Your task to perform on an android device: Look up the top rated 18v miter saw on Home Depot. Image 0: 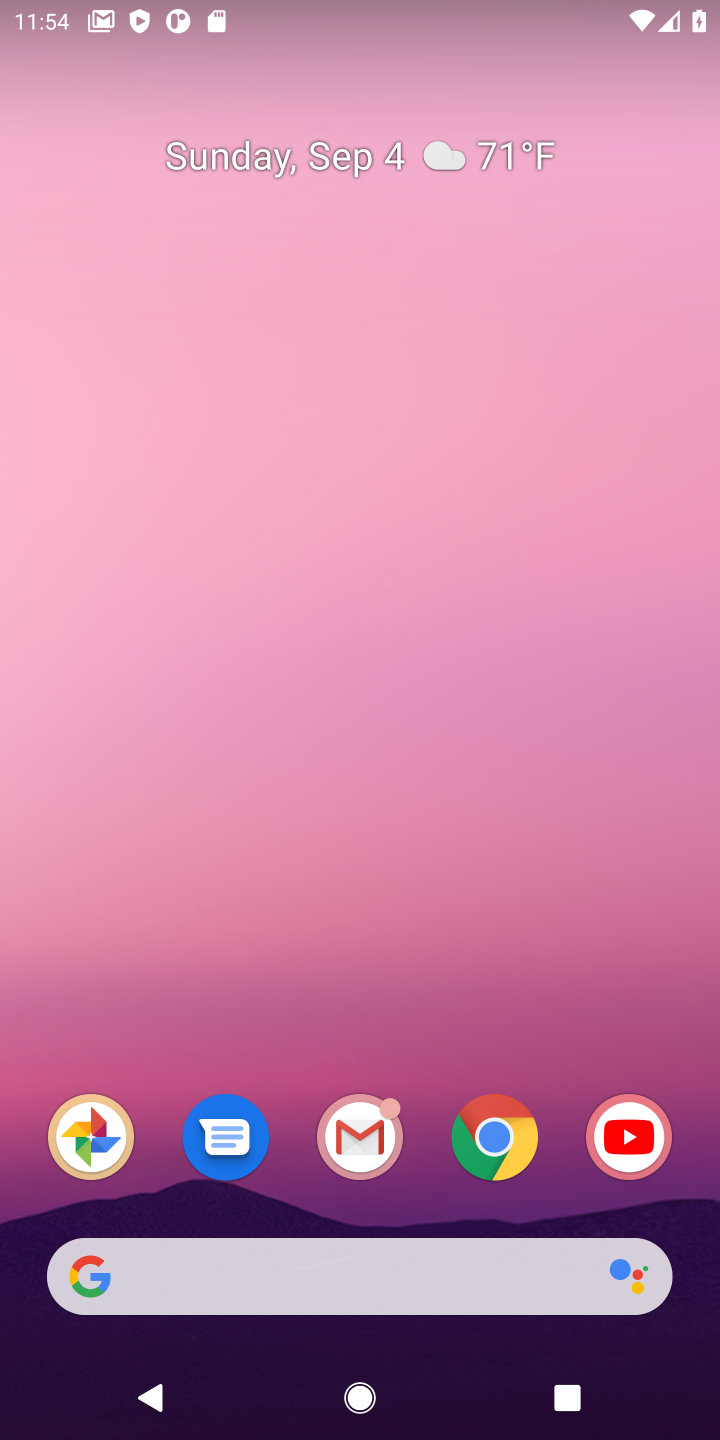
Step 0: click (486, 1146)
Your task to perform on an android device: Look up the top rated 18v miter saw on Home Depot. Image 1: 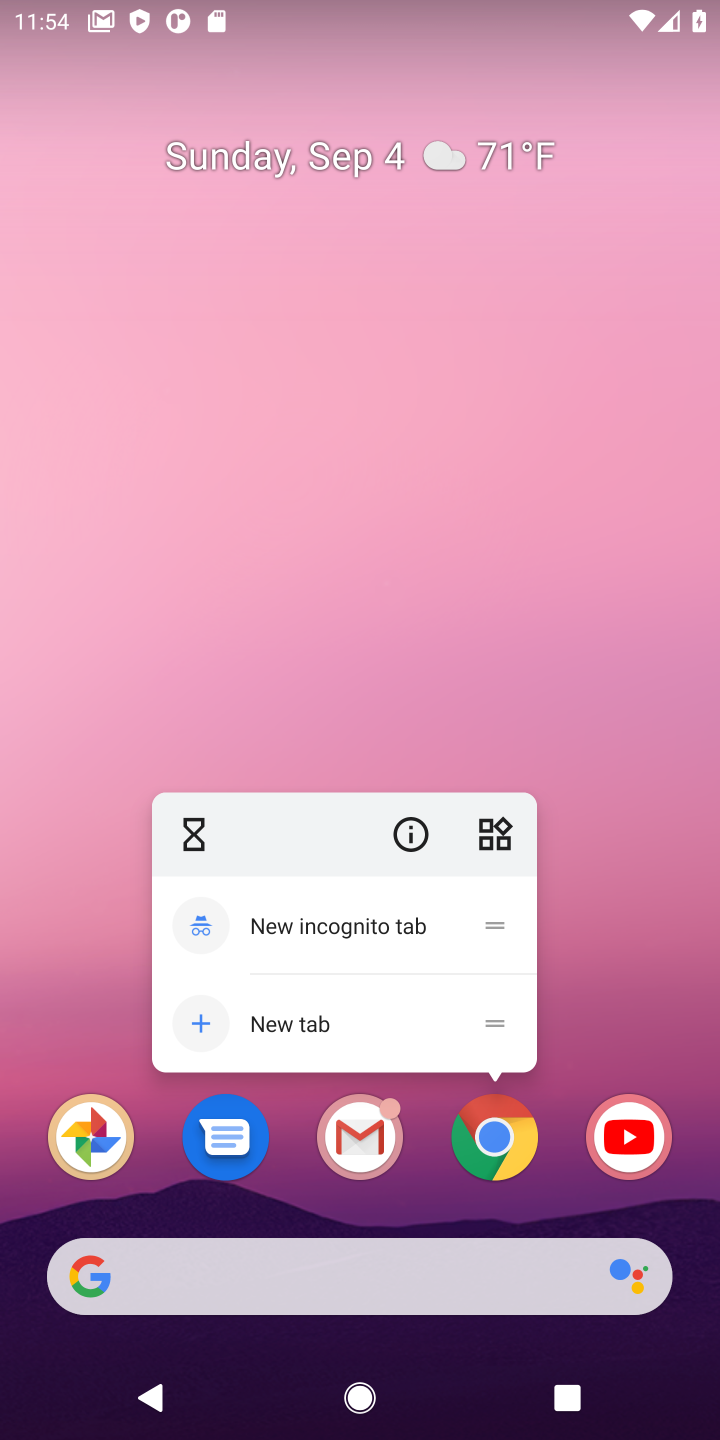
Step 1: click (486, 1140)
Your task to perform on an android device: Look up the top rated 18v miter saw on Home Depot. Image 2: 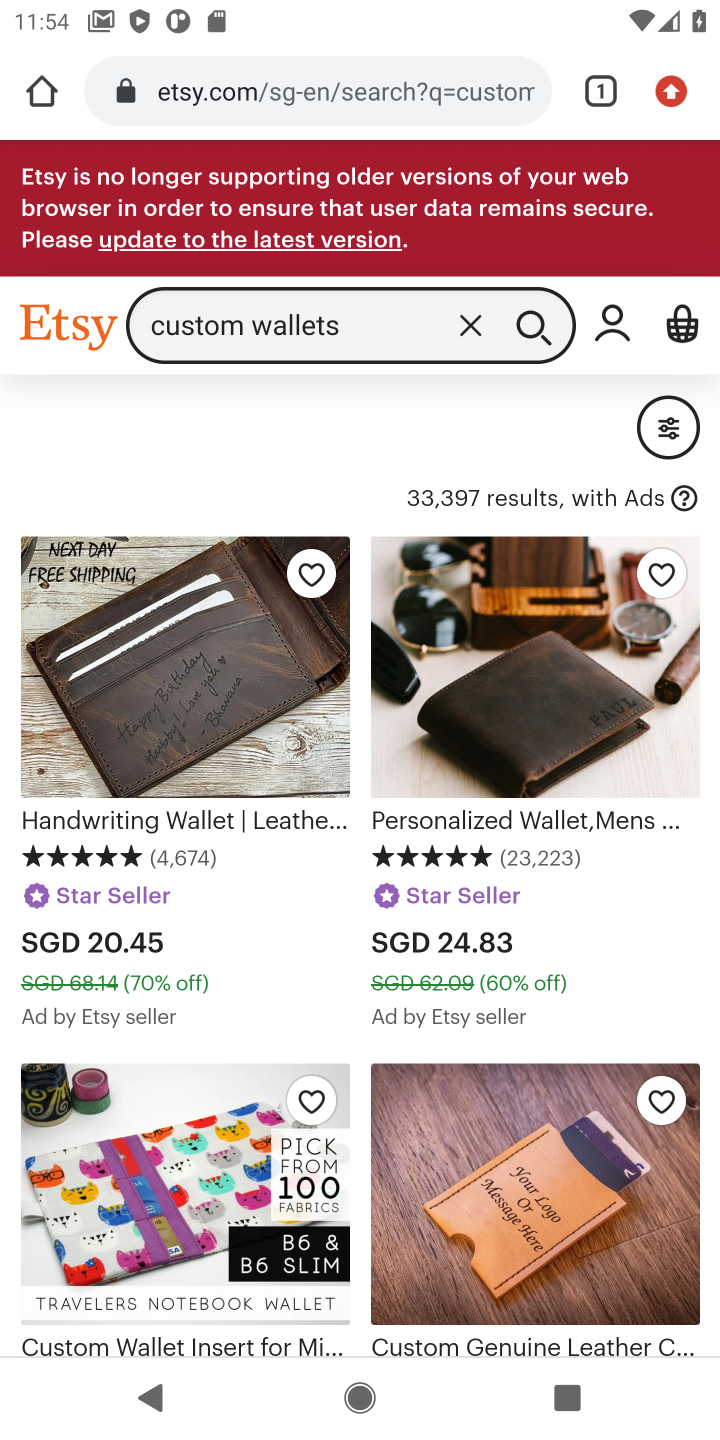
Step 2: click (397, 98)
Your task to perform on an android device: Look up the top rated 18v miter saw on Home Depot. Image 3: 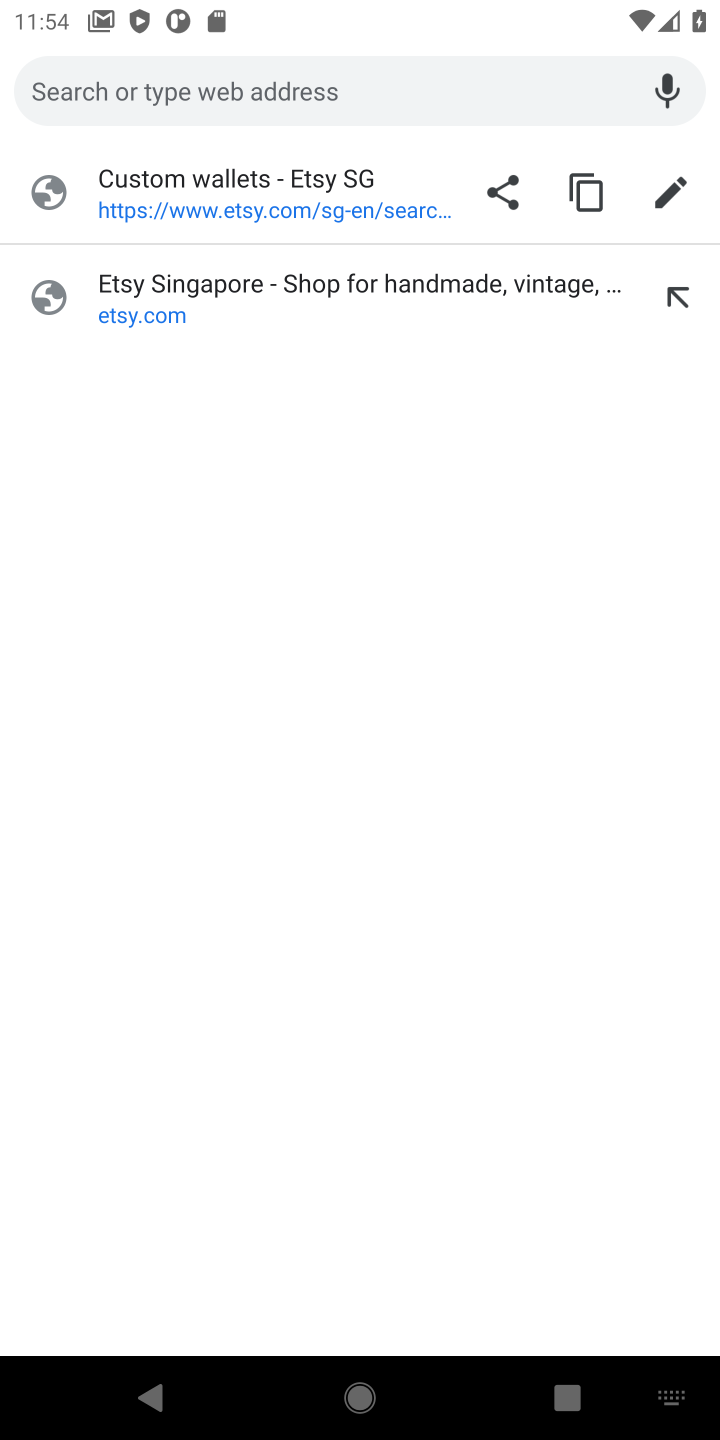
Step 3: type "home depot"
Your task to perform on an android device: Look up the top rated 18v miter saw on Home Depot. Image 4: 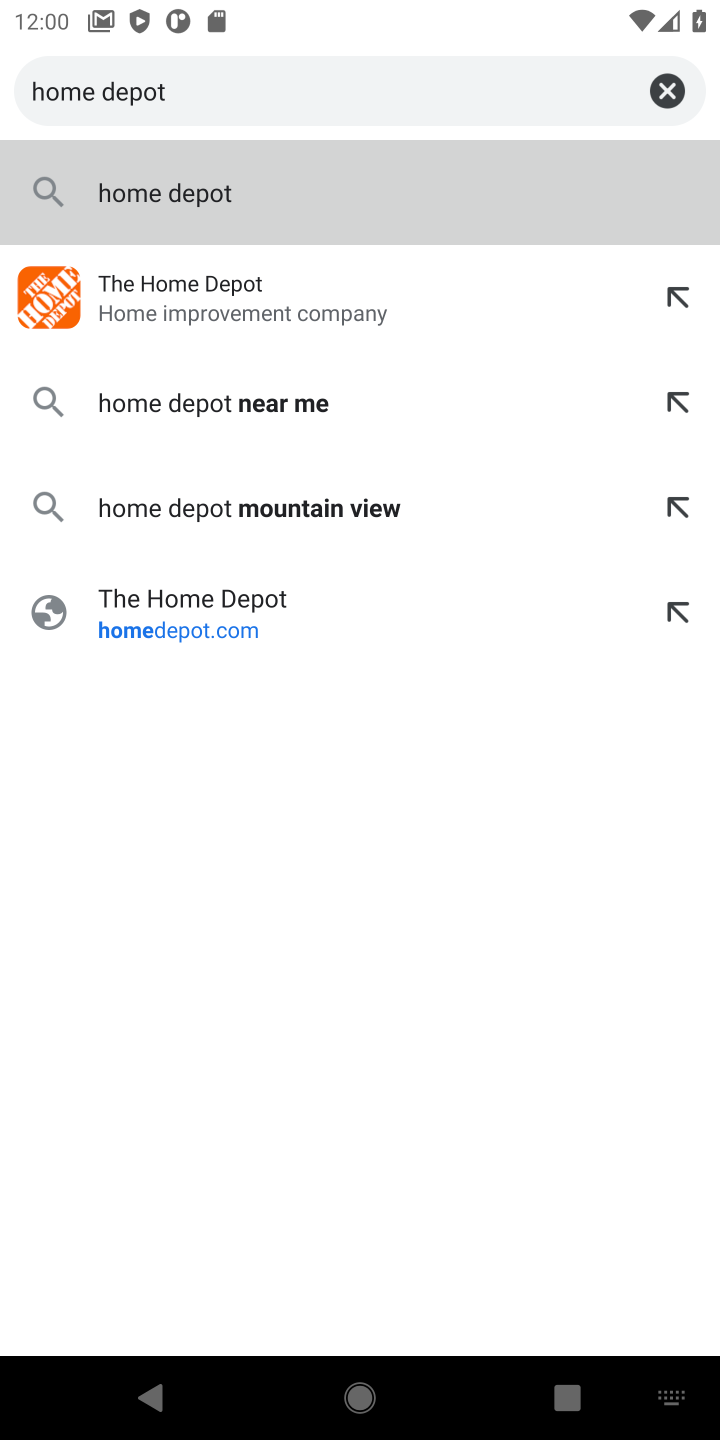
Step 4: click (284, 199)
Your task to perform on an android device: Look up the top rated 18v miter saw on Home Depot. Image 5: 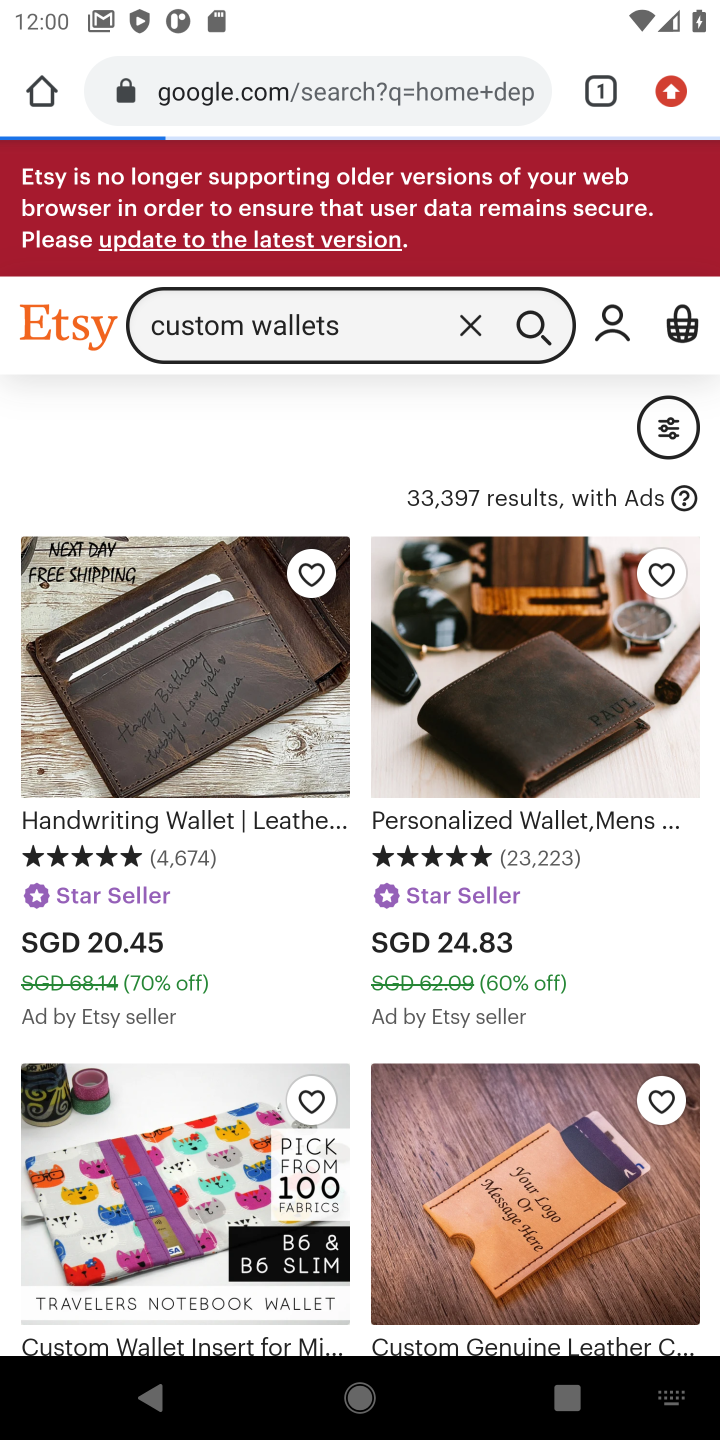
Step 5: task complete